Your task to perform on an android device: Open Yahoo.com Image 0: 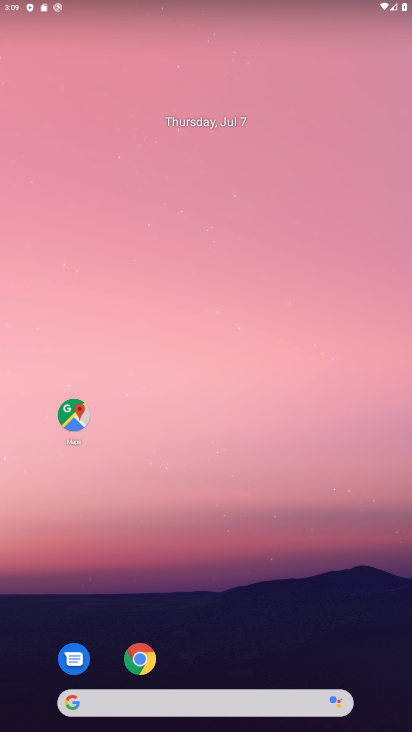
Step 0: click (148, 655)
Your task to perform on an android device: Open Yahoo.com Image 1: 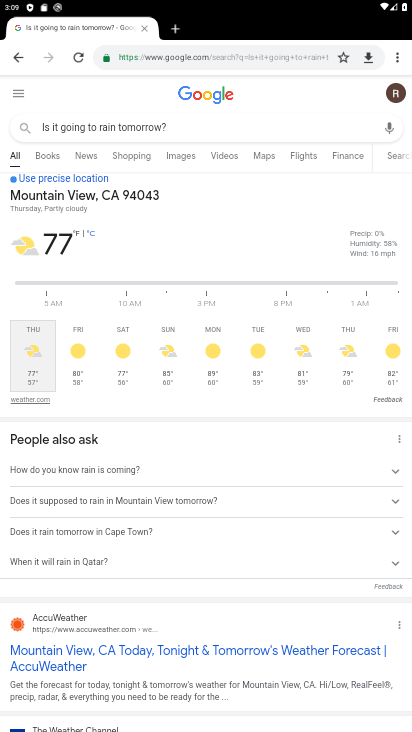
Step 1: click (162, 54)
Your task to perform on an android device: Open Yahoo.com Image 2: 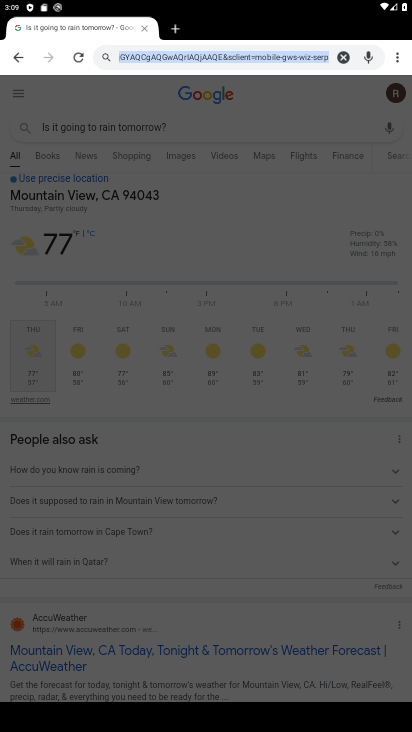
Step 2: type "Yahoo.com"
Your task to perform on an android device: Open Yahoo.com Image 3: 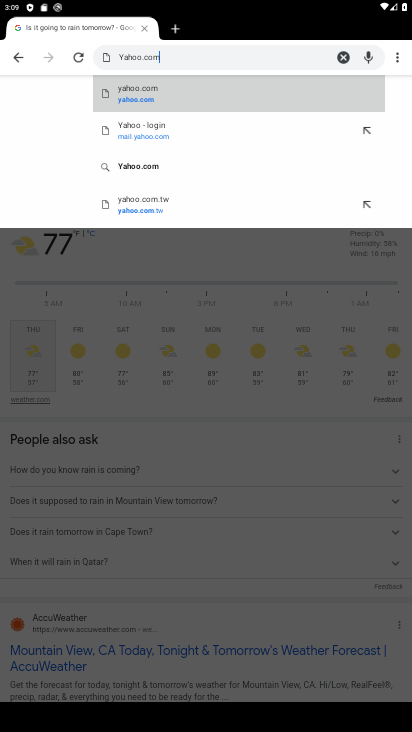
Step 3: click (138, 99)
Your task to perform on an android device: Open Yahoo.com Image 4: 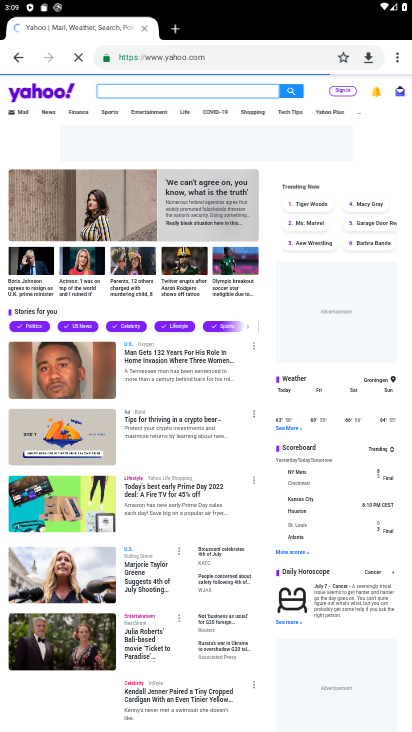
Step 4: task complete